Your task to perform on an android device: Search for a coffee table on IKEA Image 0: 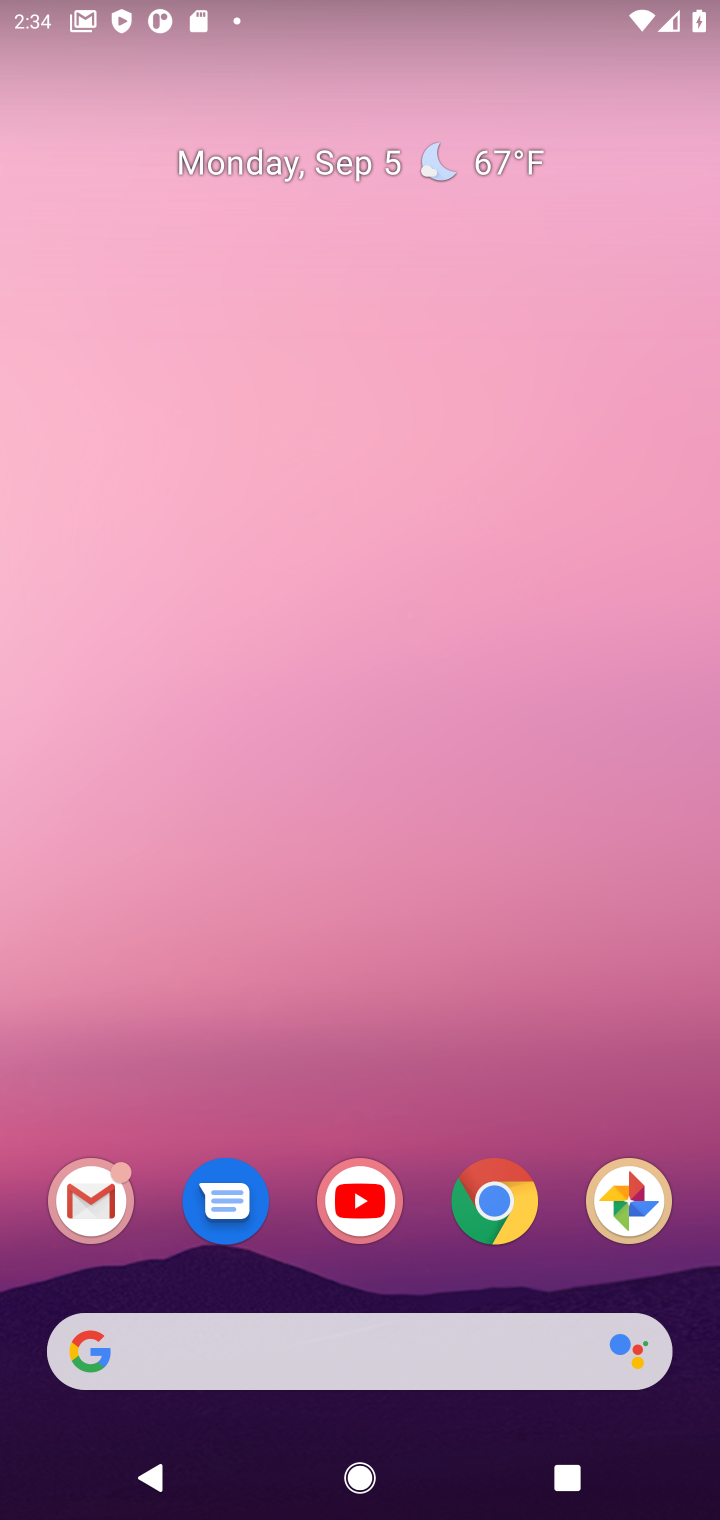
Step 0: click (487, 1191)
Your task to perform on an android device: Search for a coffee table on IKEA Image 1: 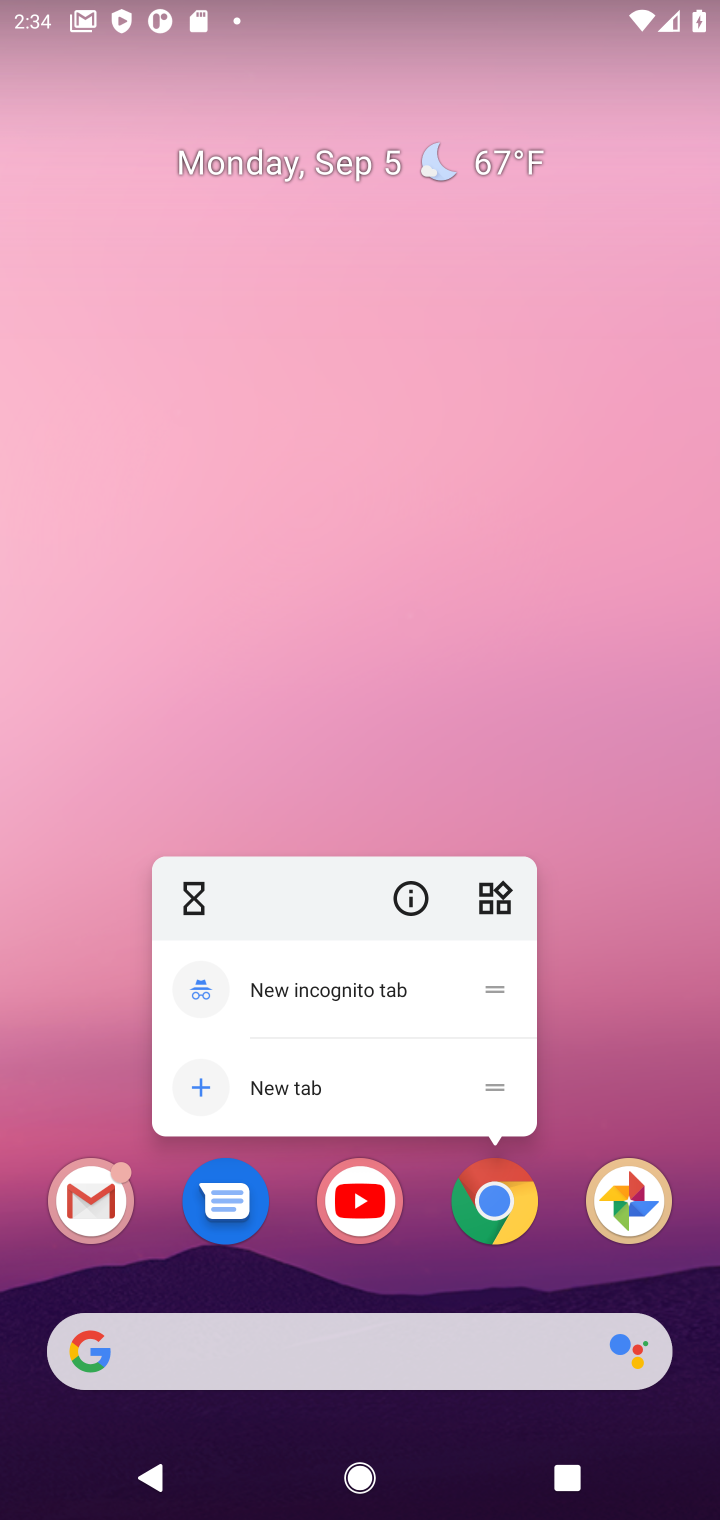
Step 1: click (494, 1195)
Your task to perform on an android device: Search for a coffee table on IKEA Image 2: 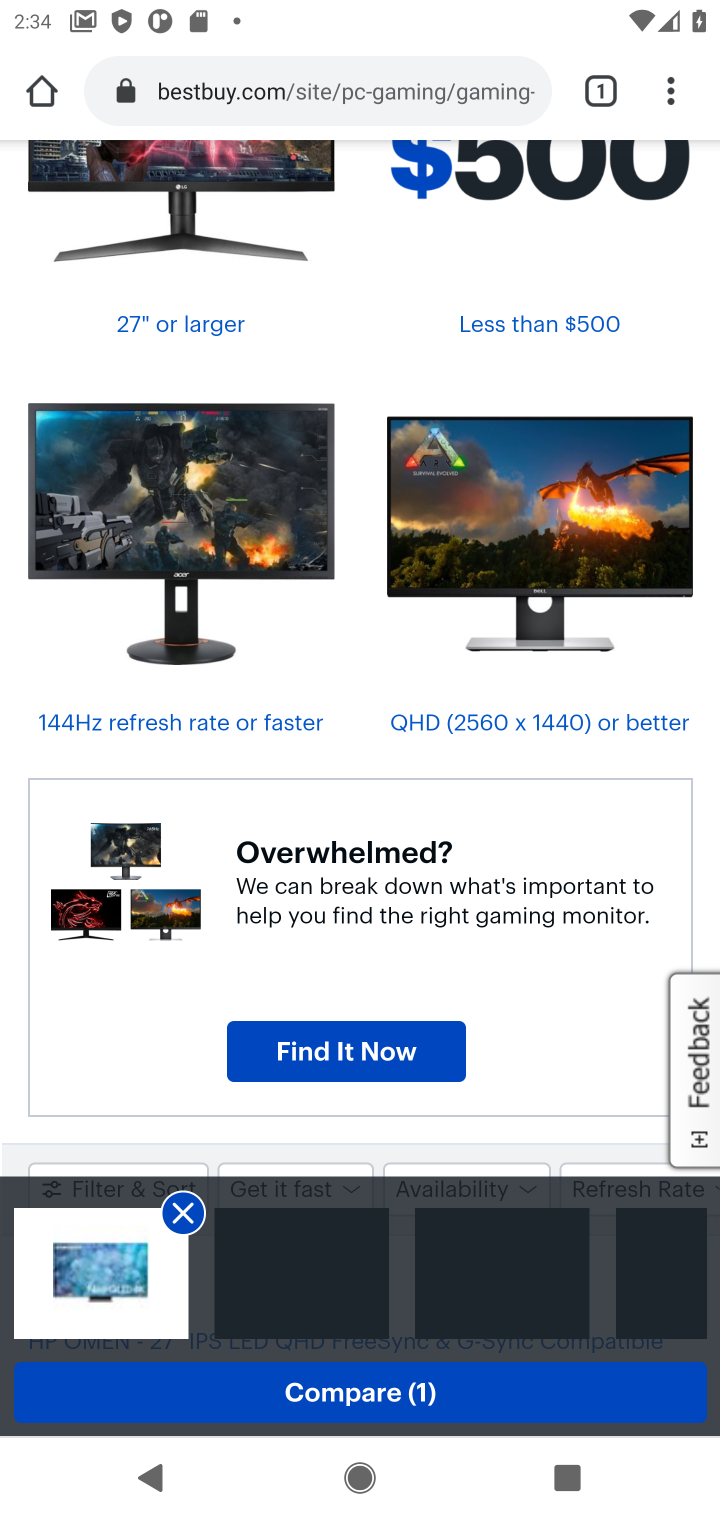
Step 2: click (450, 93)
Your task to perform on an android device: Search for a coffee table on IKEA Image 3: 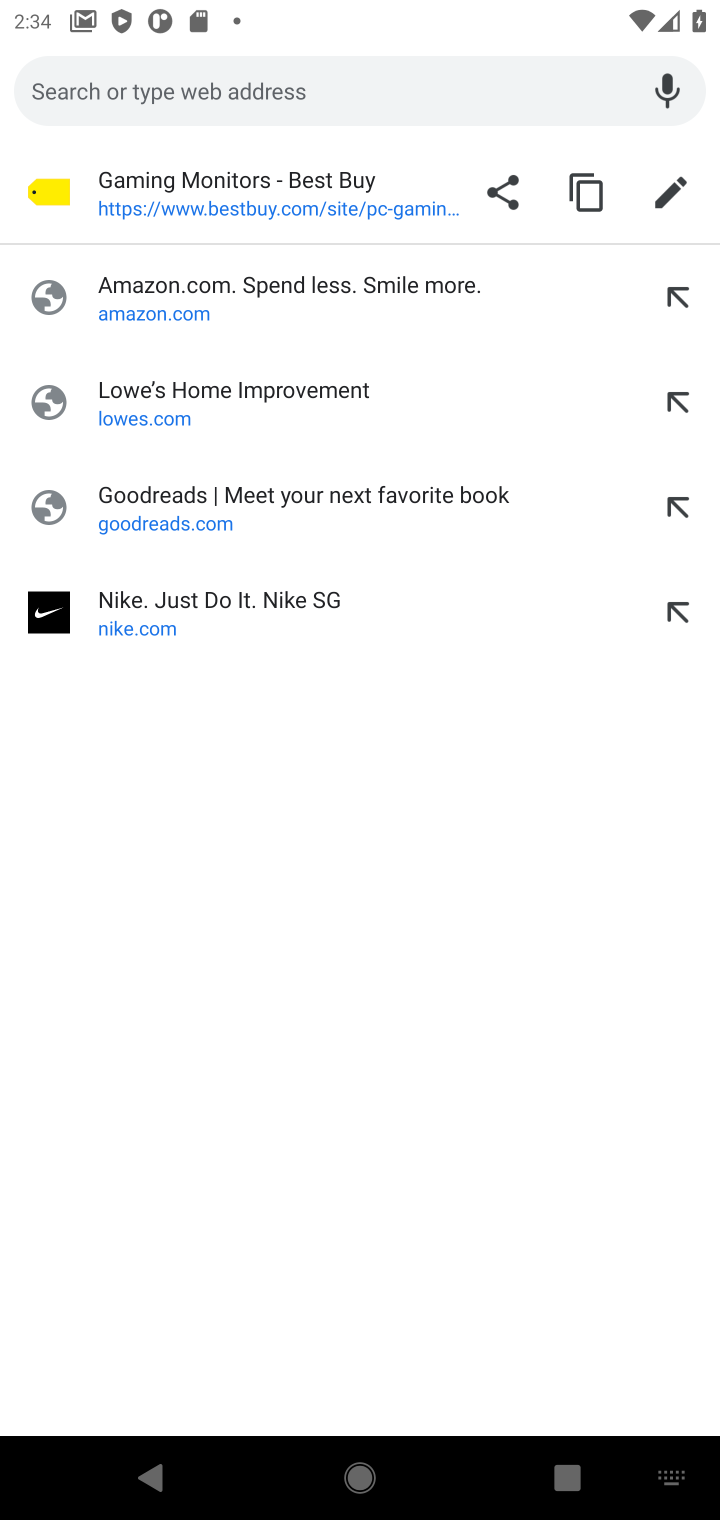
Step 3: click (459, 78)
Your task to perform on an android device: Search for a coffee table on IKEA Image 4: 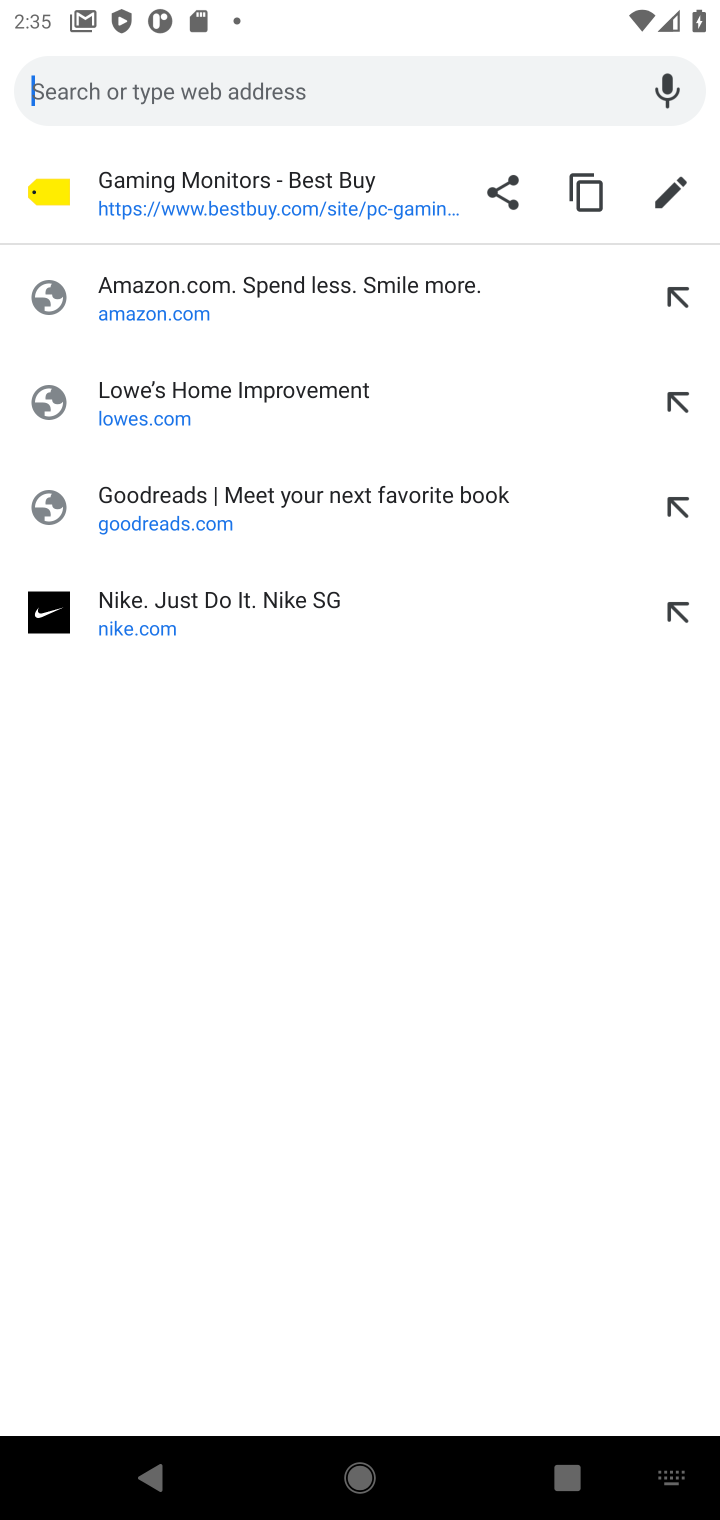
Step 4: click (329, 74)
Your task to perform on an android device: Search for a coffee table on IKEA Image 5: 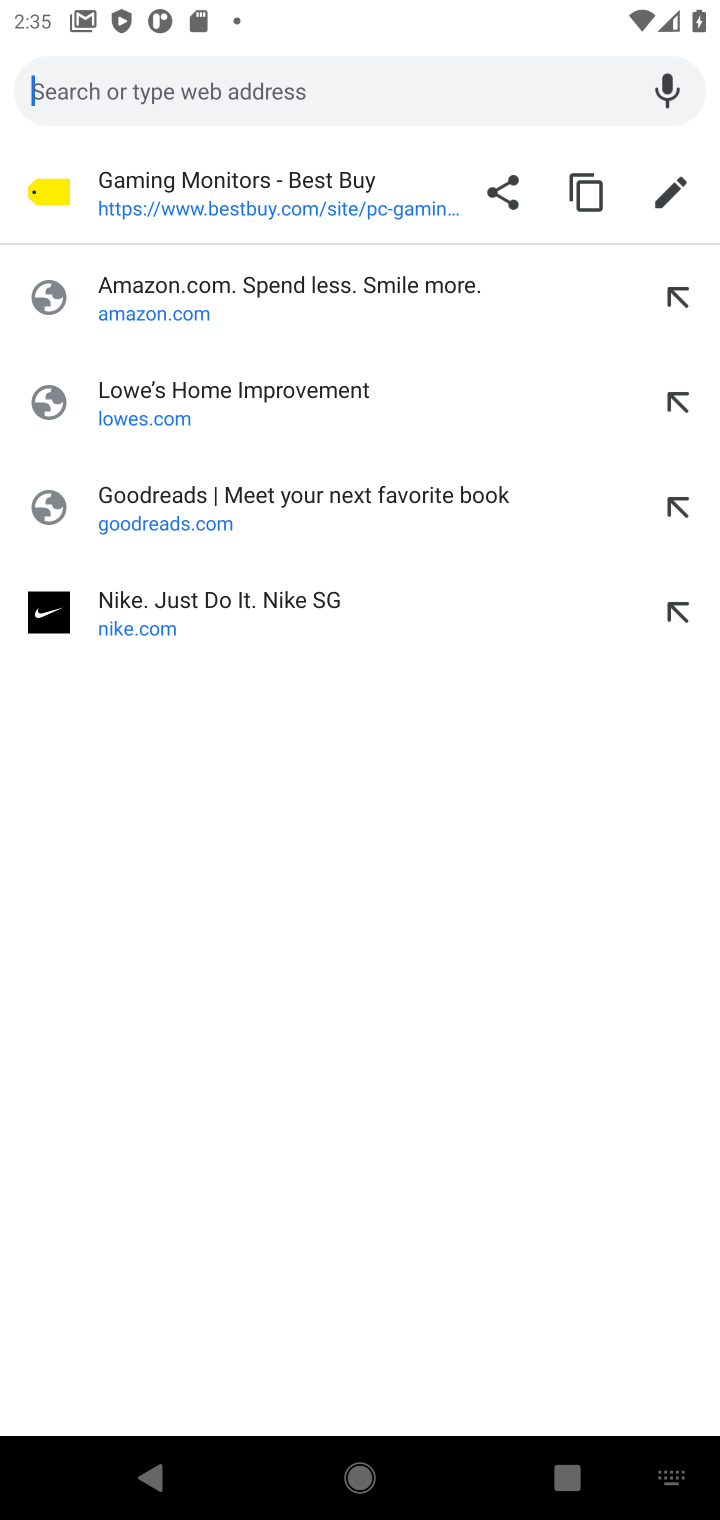
Step 5: press enter
Your task to perform on an android device: Search for a coffee table on IKEA Image 6: 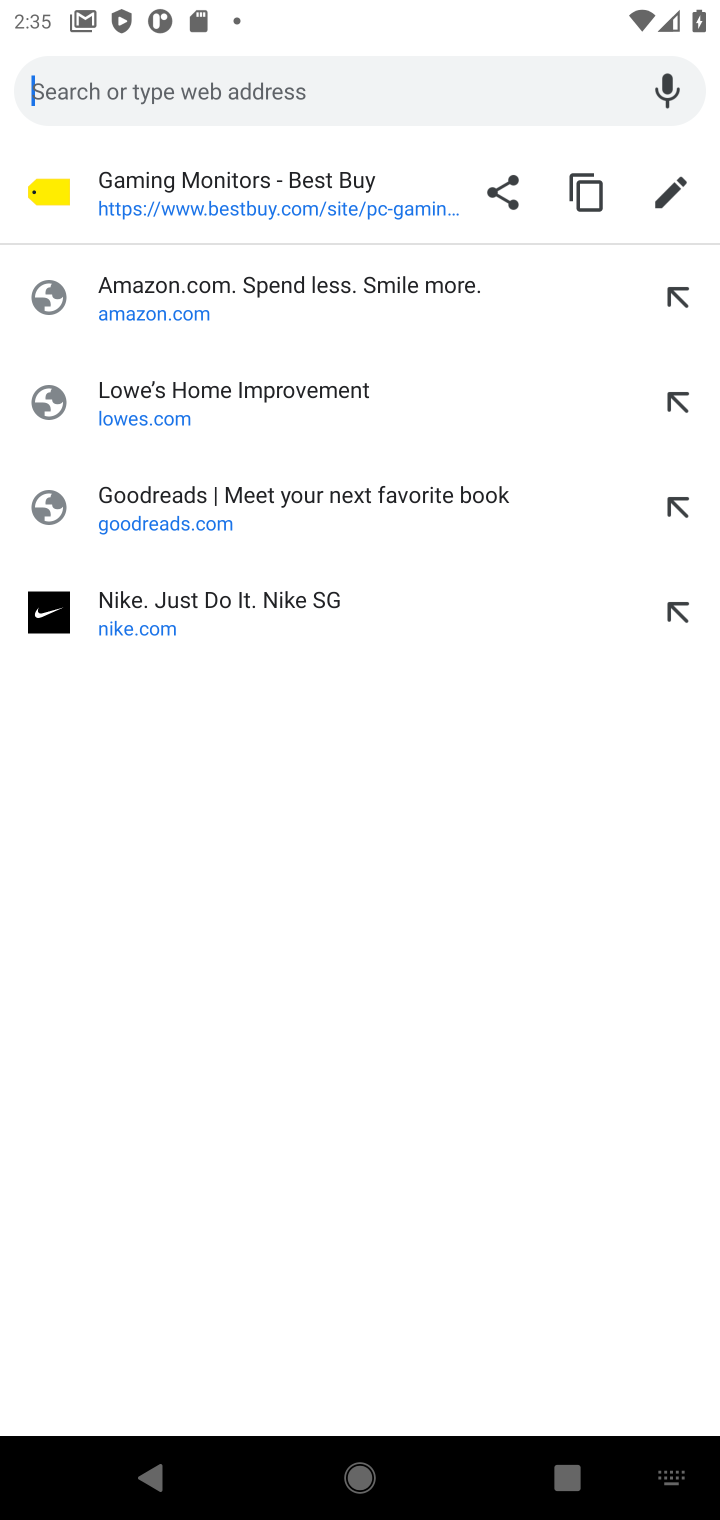
Step 6: type " IKEA"
Your task to perform on an android device: Search for a coffee table on IKEA Image 7: 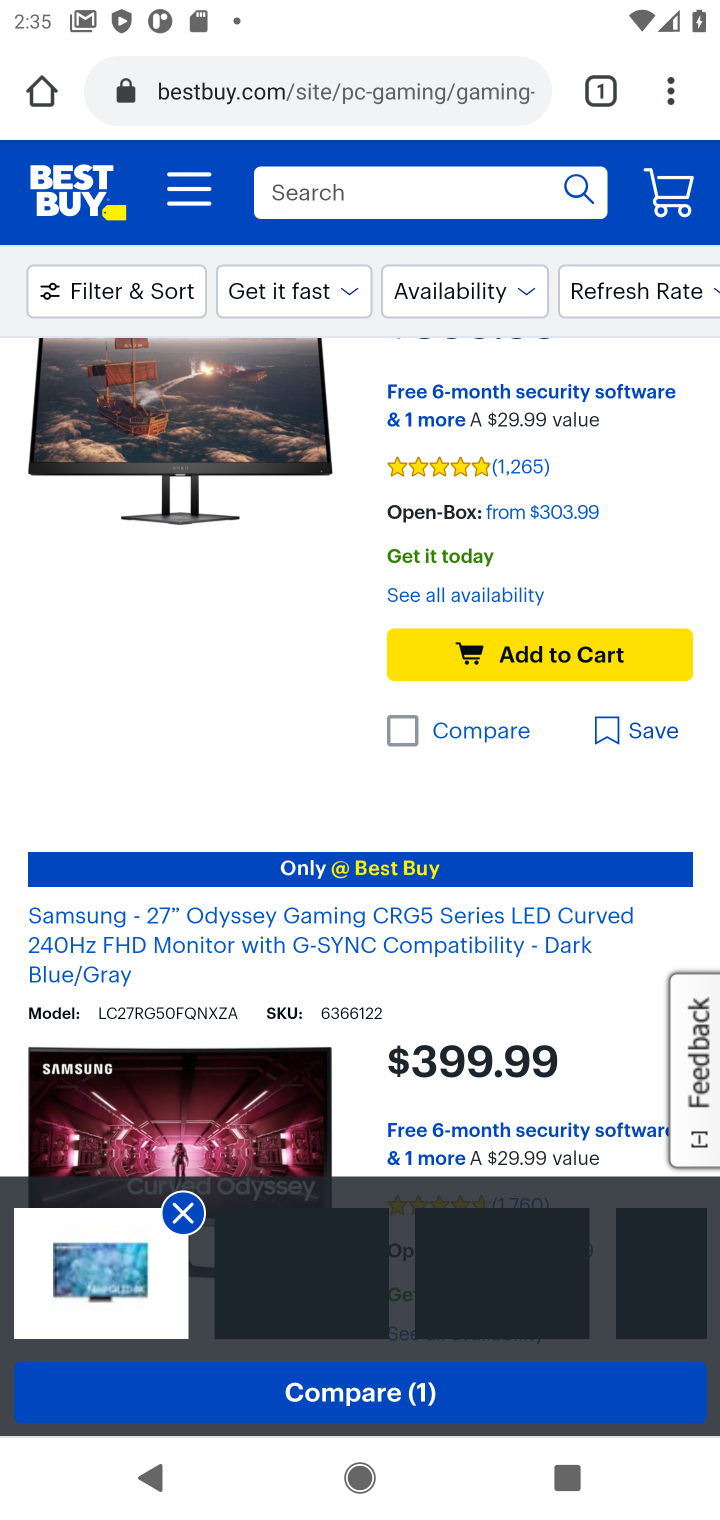
Step 7: click (410, 80)
Your task to perform on an android device: Search for a coffee table on IKEA Image 8: 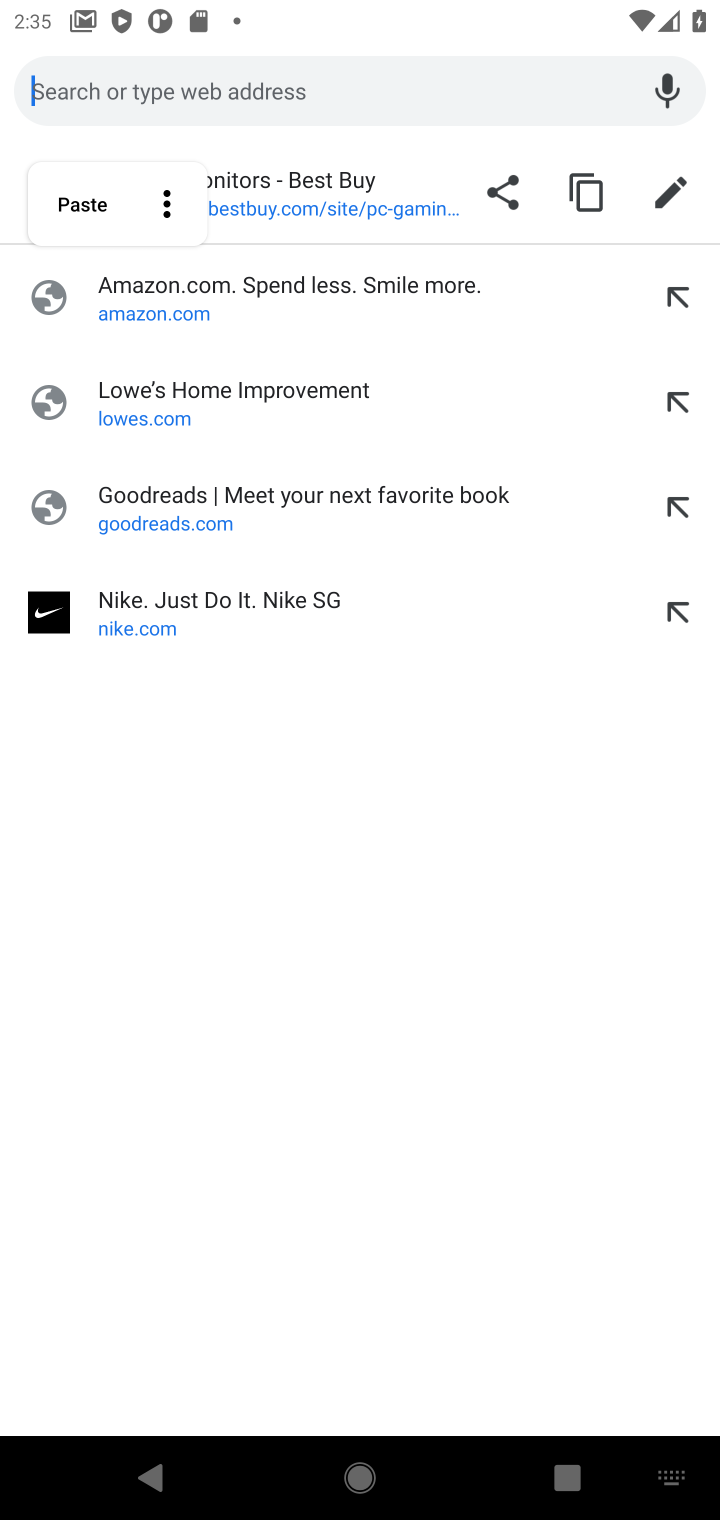
Step 8: press enter
Your task to perform on an android device: Search for a coffee table on IKEA Image 9: 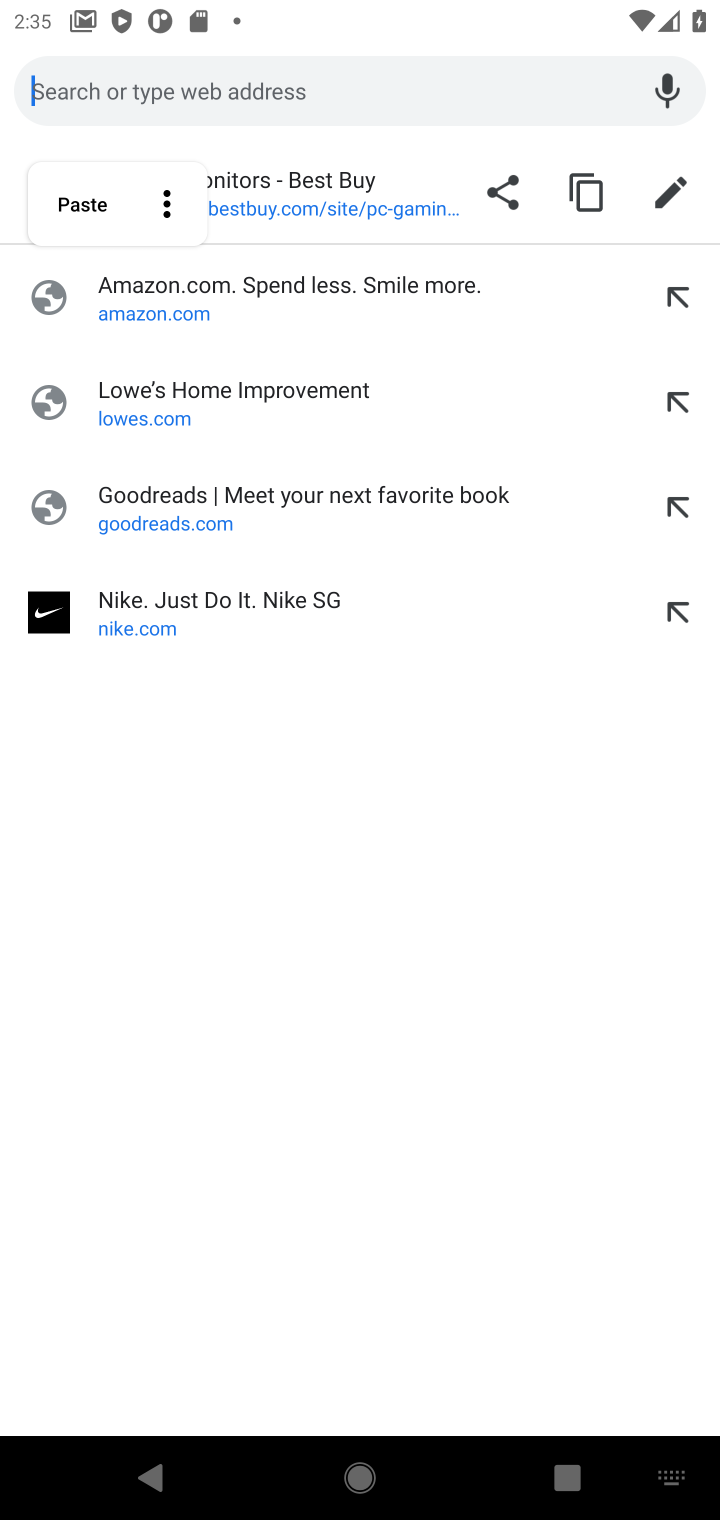
Step 9: type "IKEA"
Your task to perform on an android device: Search for a coffee table on IKEA Image 10: 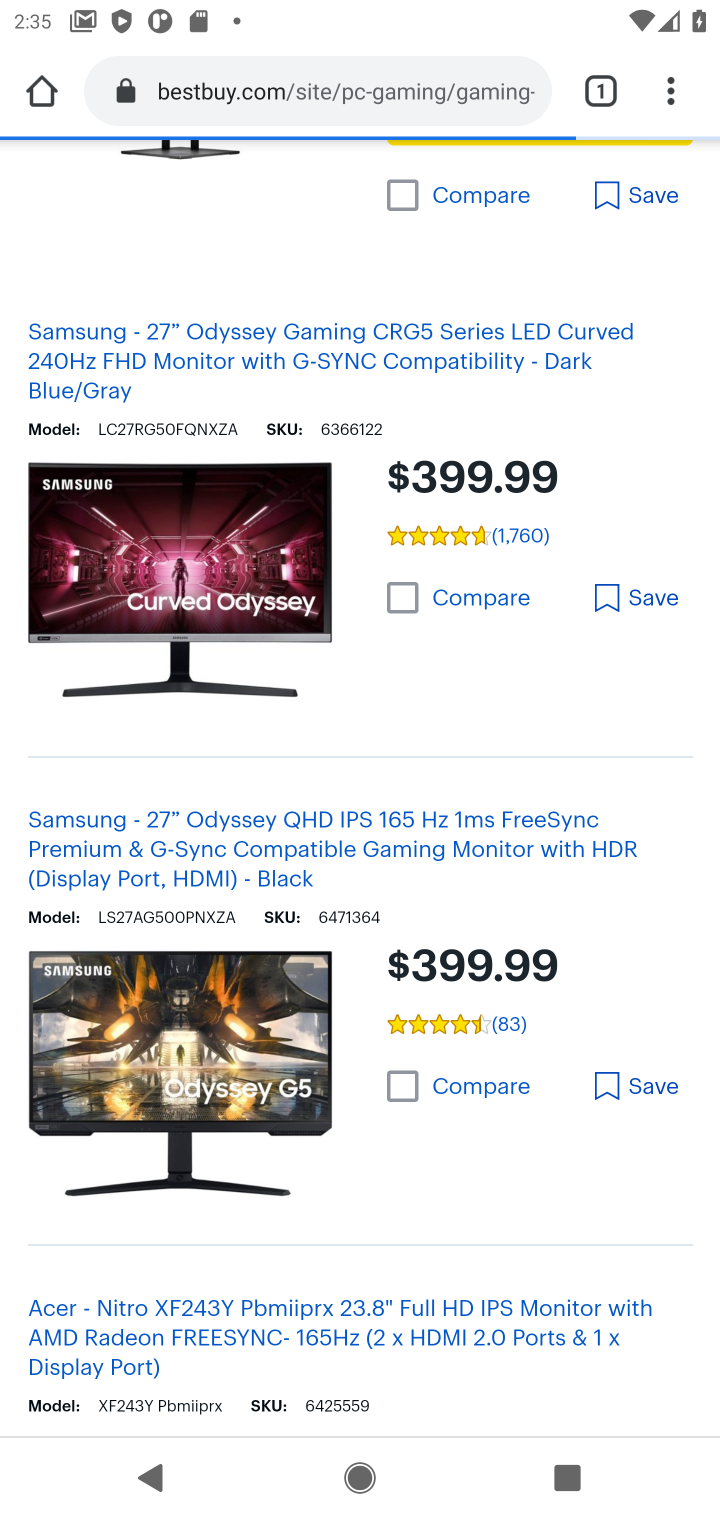
Step 10: click (391, 89)
Your task to perform on an android device: Search for a coffee table on IKEA Image 11: 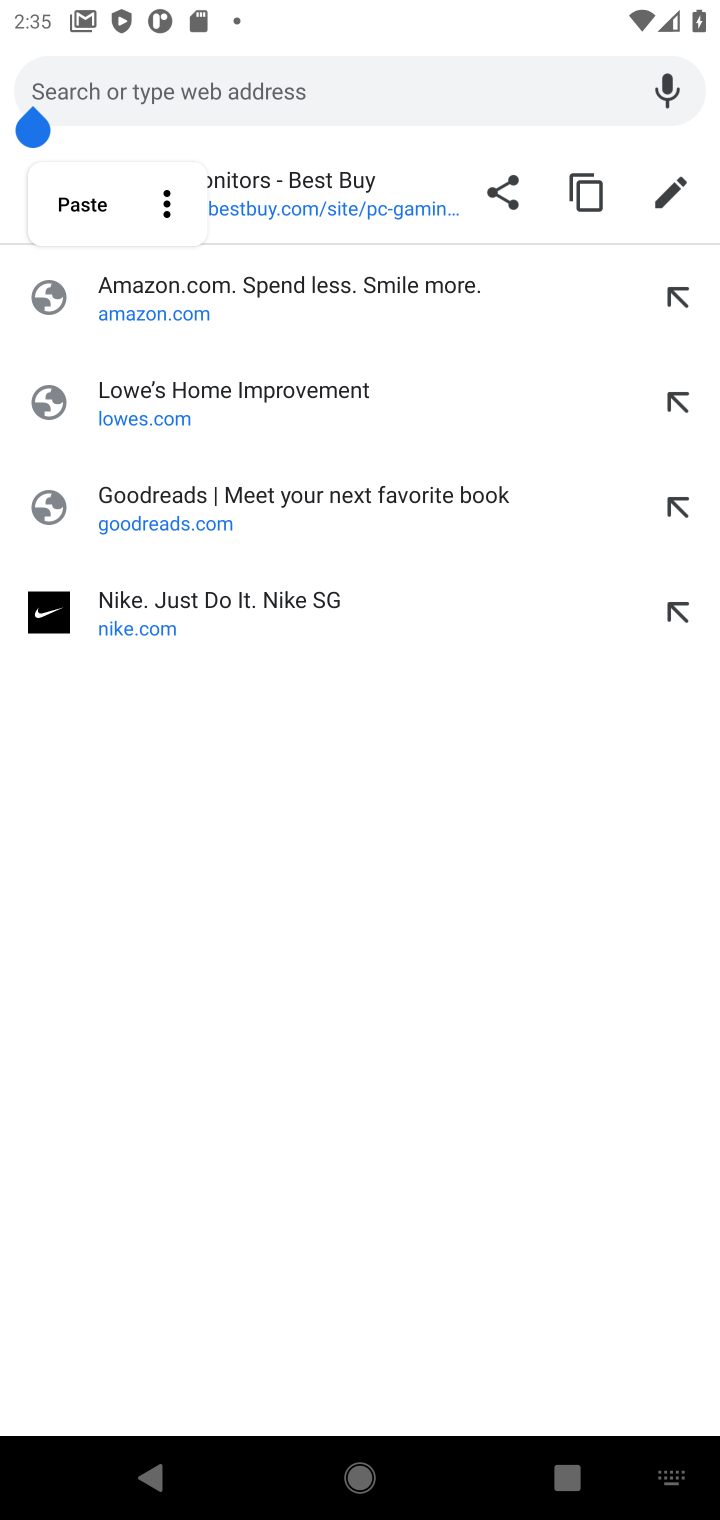
Step 11: type "IKEA"
Your task to perform on an android device: Search for a coffee table on IKEA Image 12: 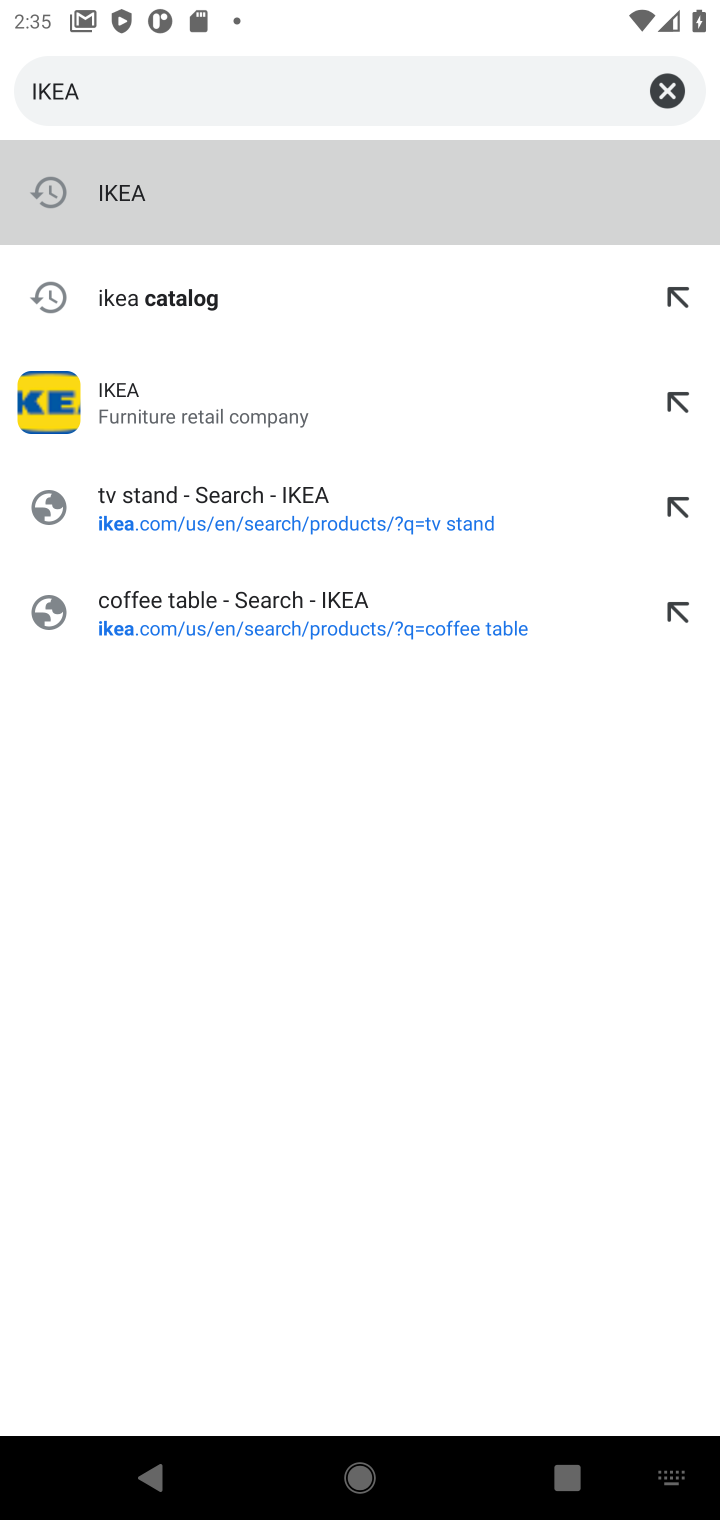
Step 12: press enter
Your task to perform on an android device: Search for a coffee table on IKEA Image 13: 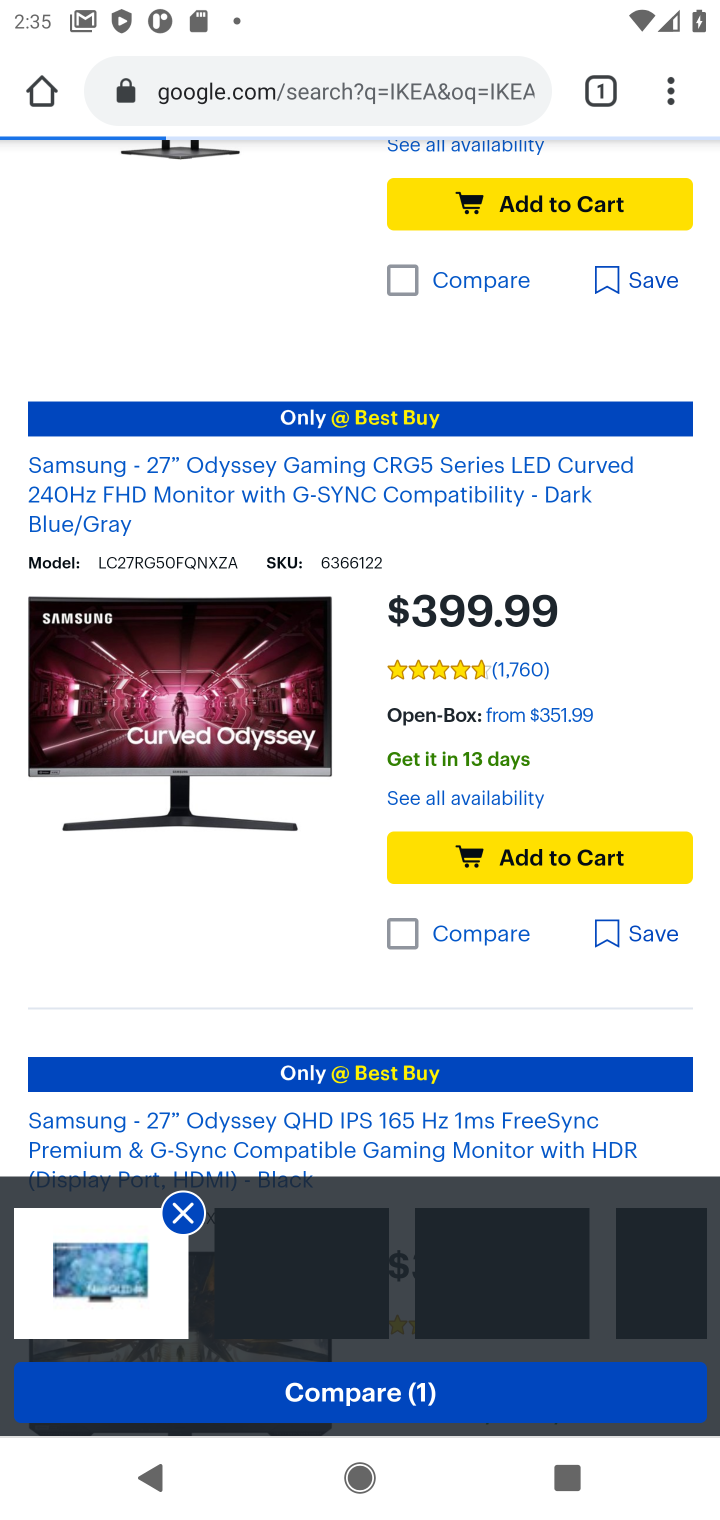
Step 13: click (136, 198)
Your task to perform on an android device: Search for a coffee table on IKEA Image 14: 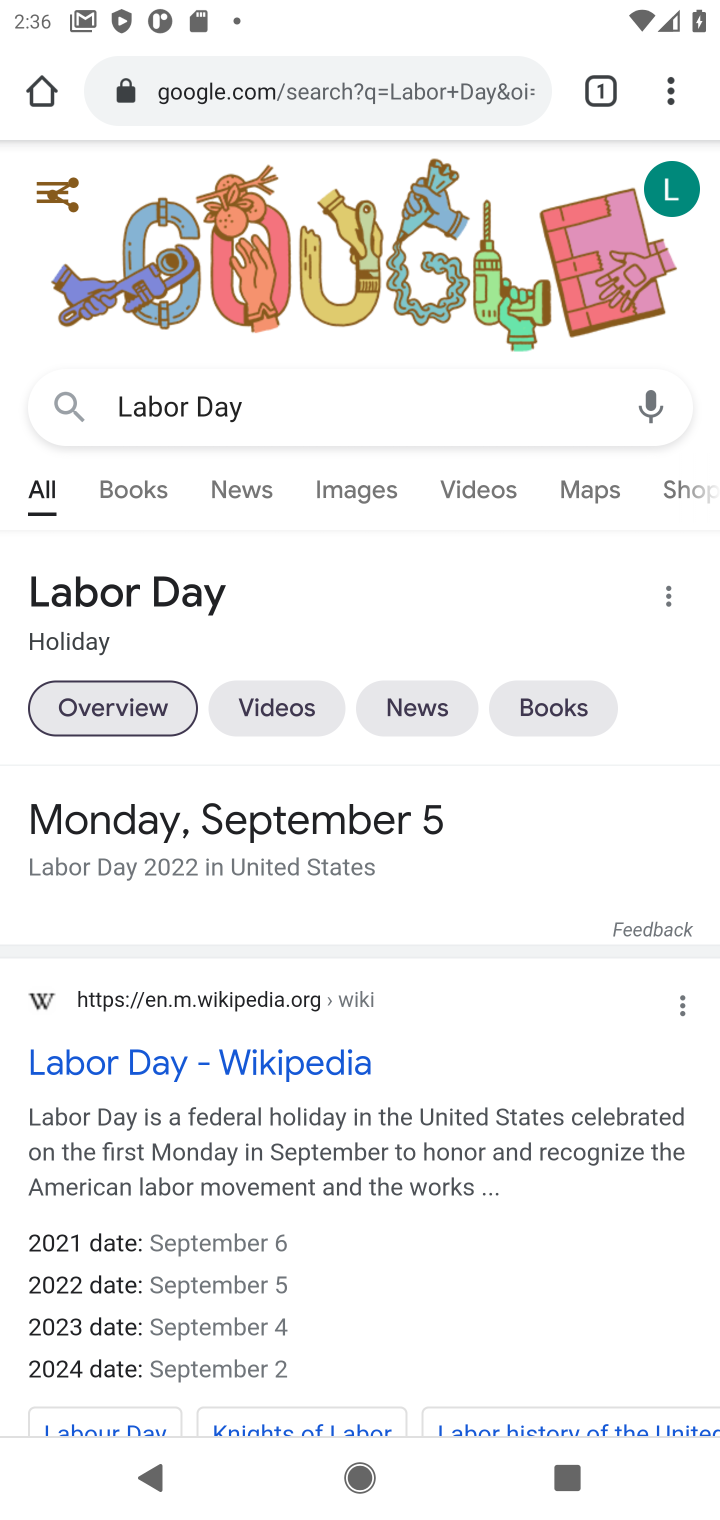
Step 14: press back button
Your task to perform on an android device: Search for a coffee table on IKEA Image 15: 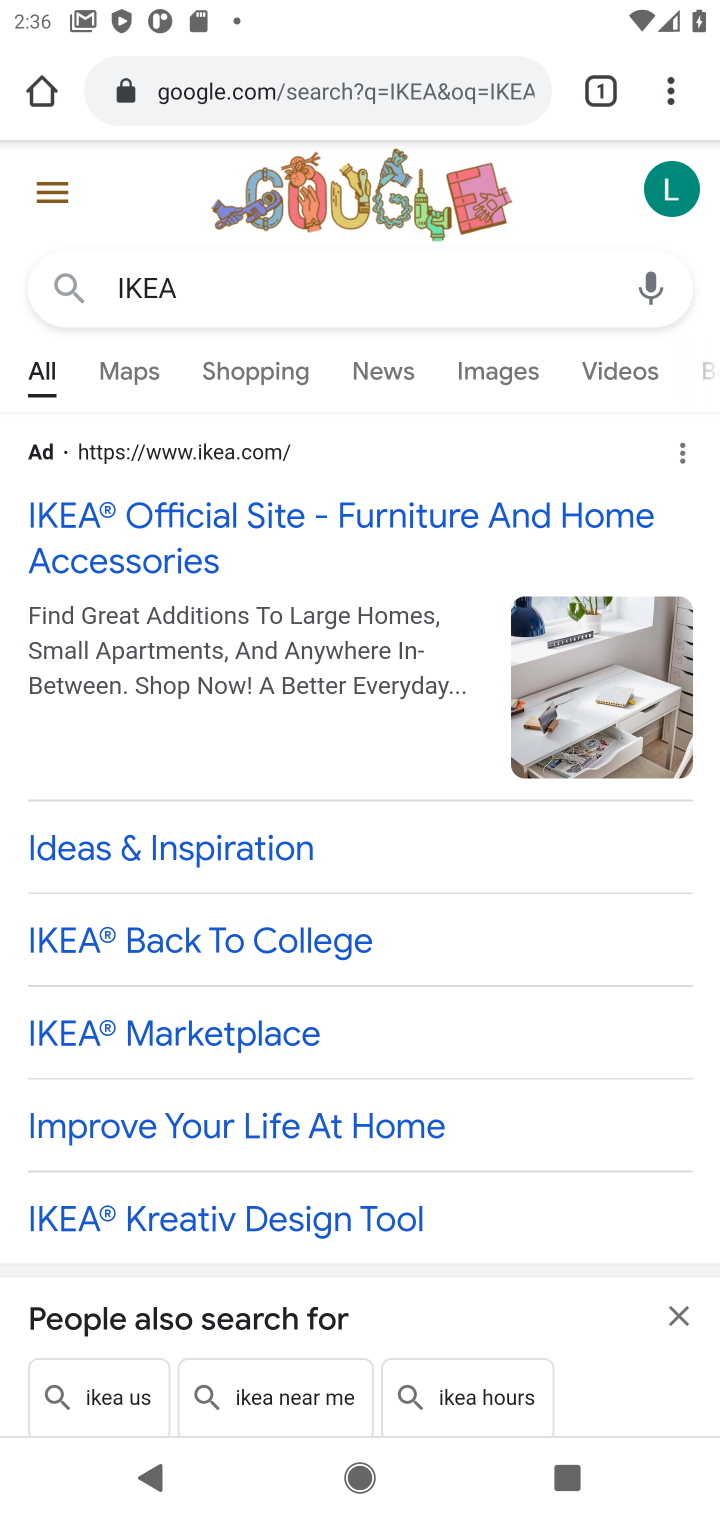
Step 15: click (224, 517)
Your task to perform on an android device: Search for a coffee table on IKEA Image 16: 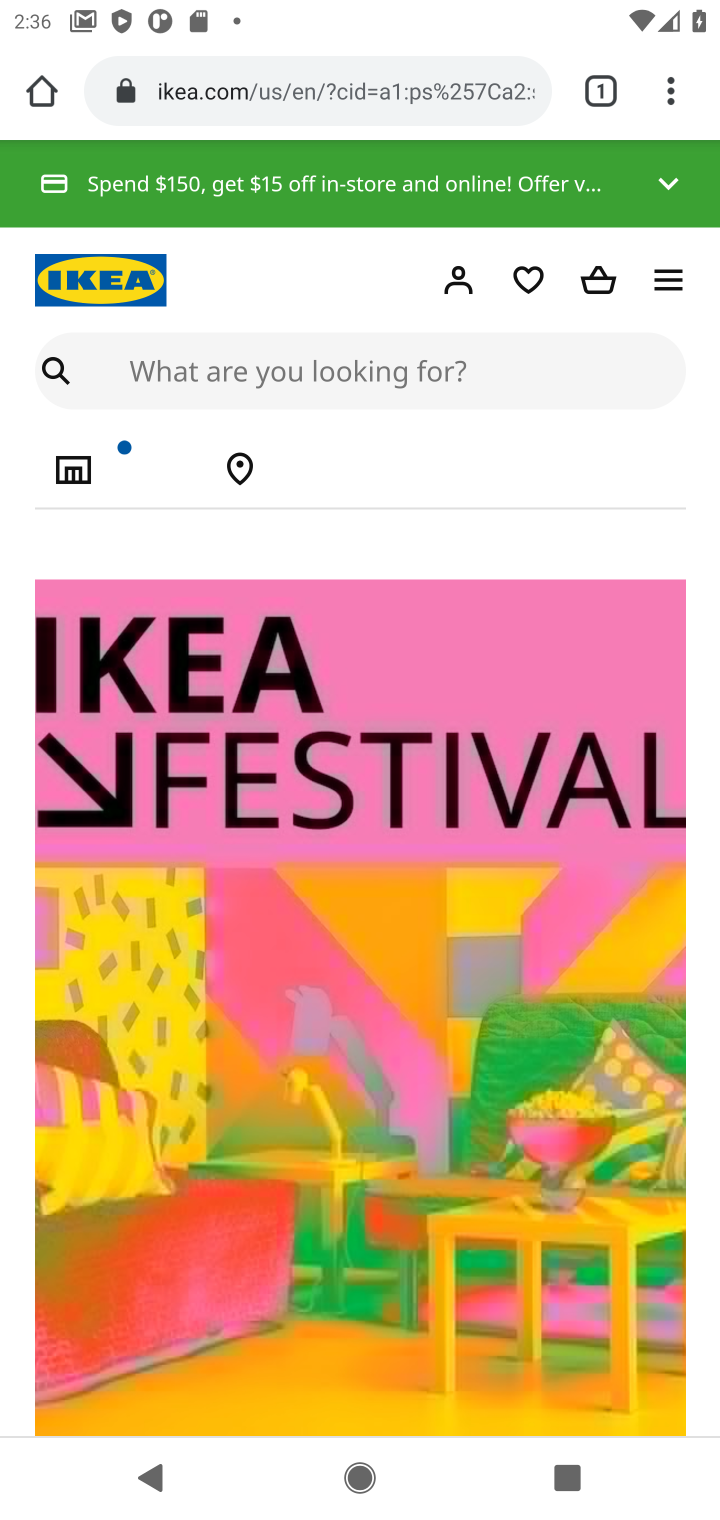
Step 16: click (300, 372)
Your task to perform on an android device: Search for a coffee table on IKEA Image 17: 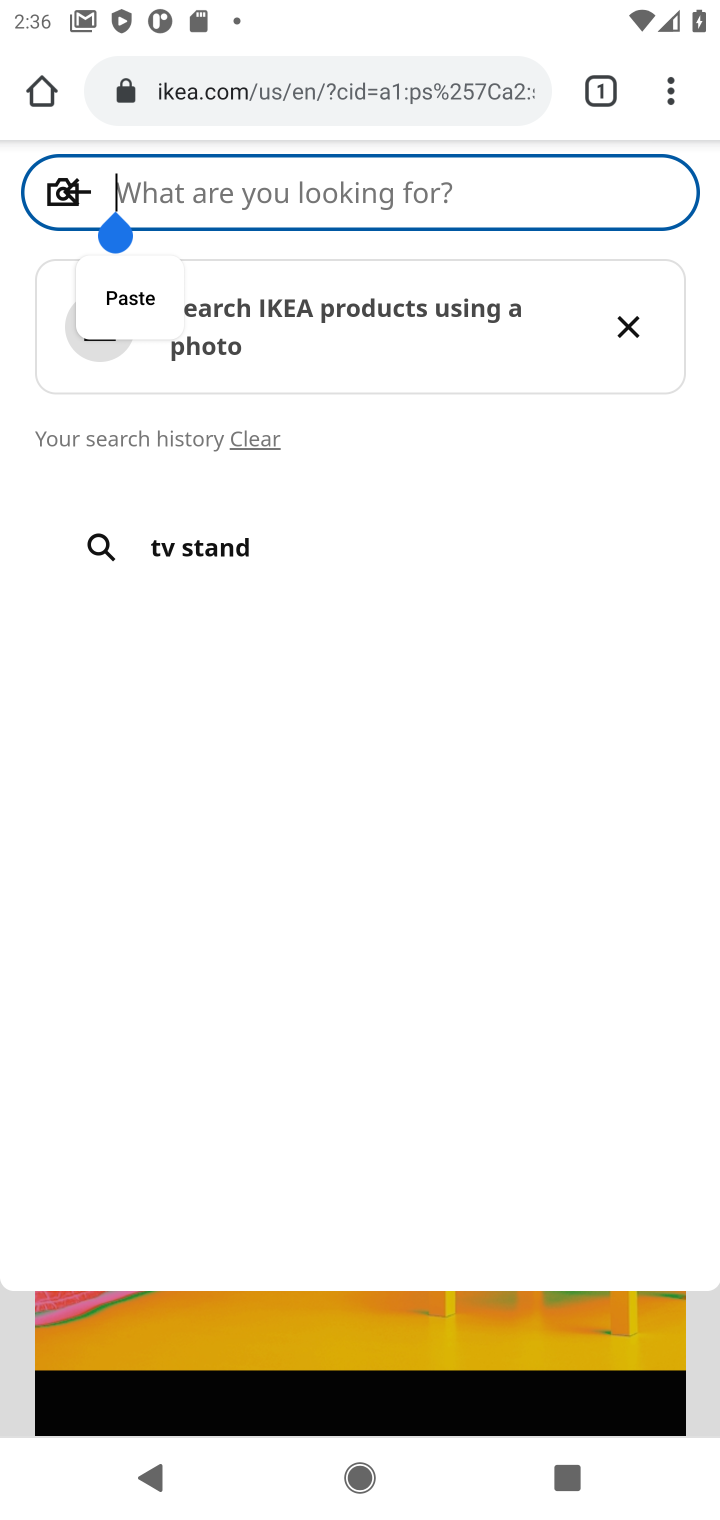
Step 17: type "coffee table"
Your task to perform on an android device: Search for a coffee table on IKEA Image 18: 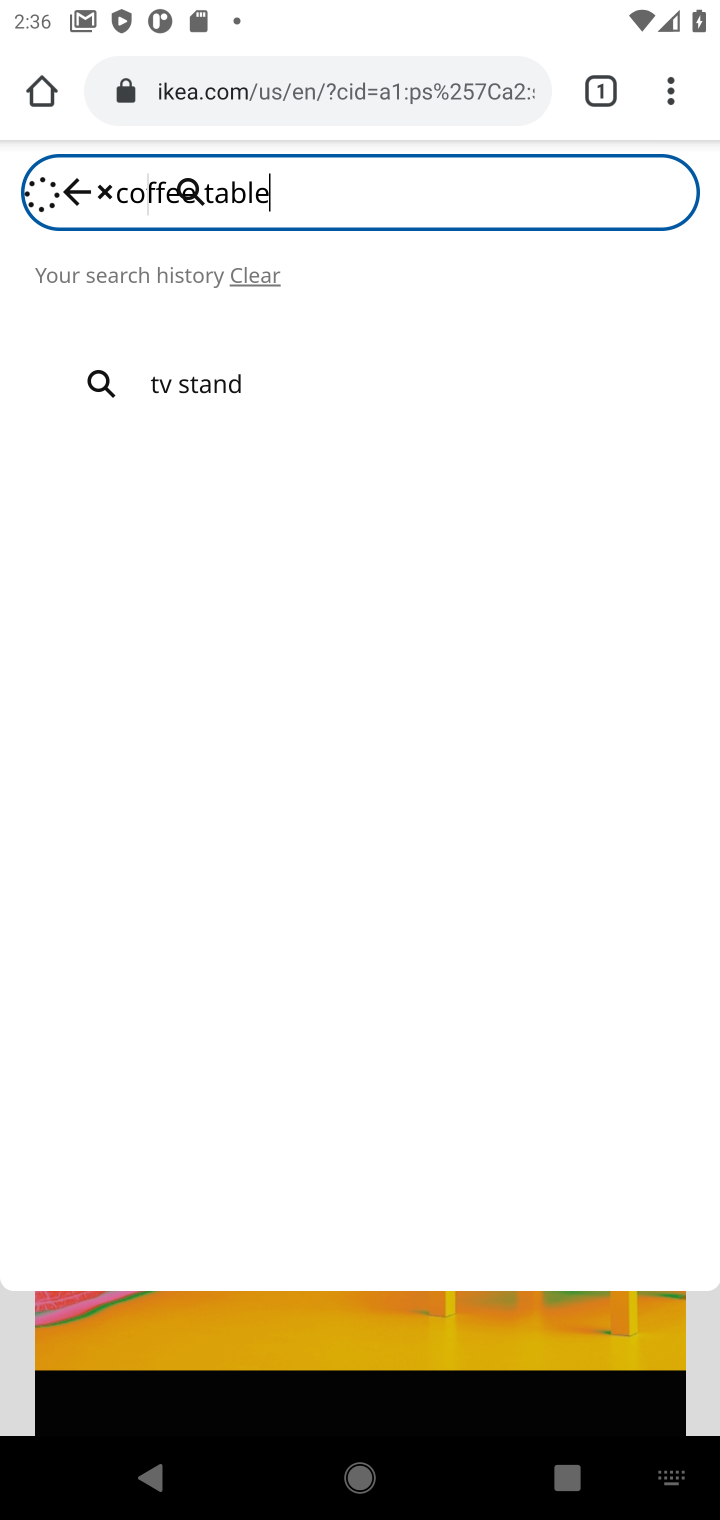
Step 18: press enter
Your task to perform on an android device: Search for a coffee table on IKEA Image 19: 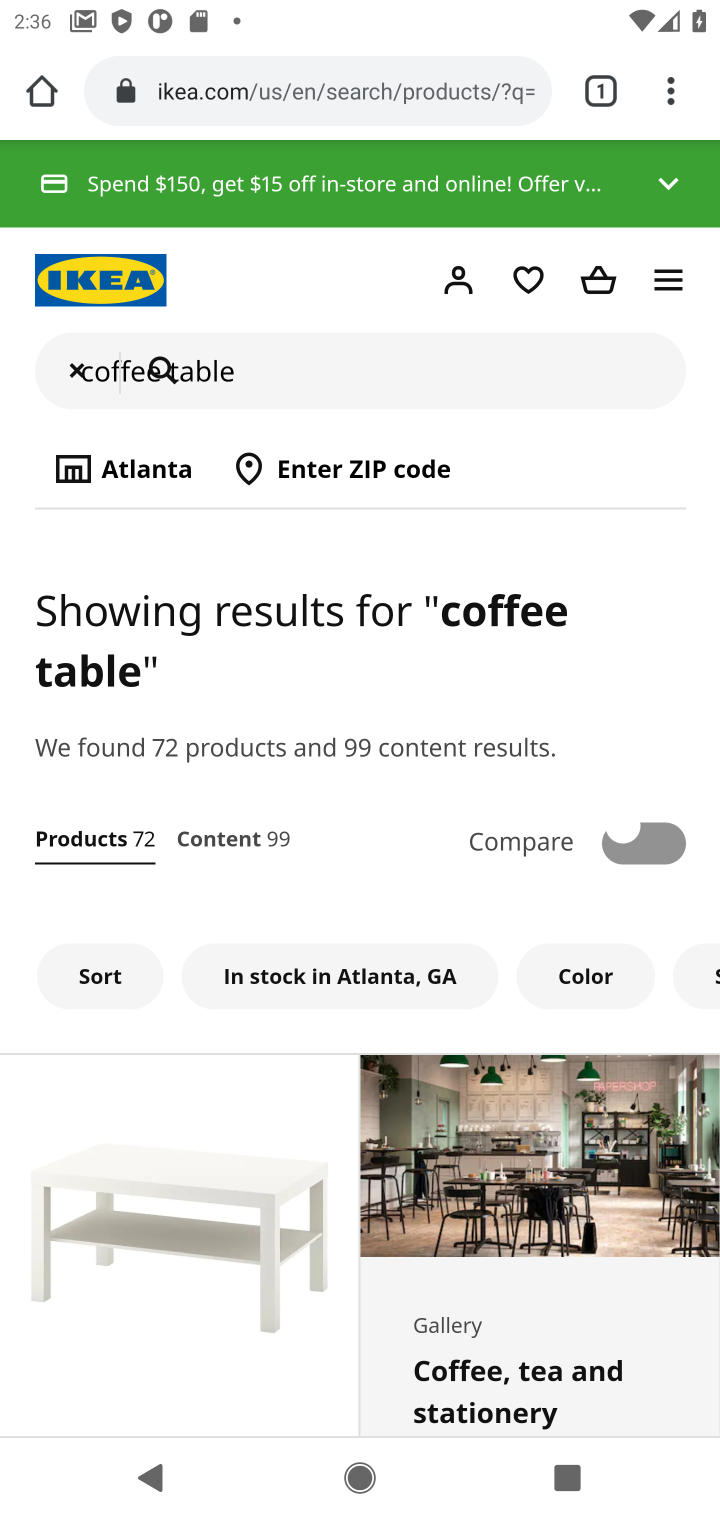
Step 19: task complete